Your task to perform on an android device: change notification settings in the gmail app Image 0: 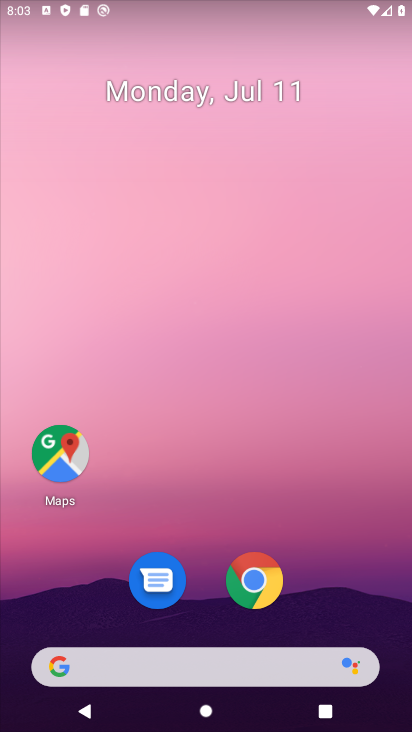
Step 0: drag from (377, 618) to (366, 167)
Your task to perform on an android device: change notification settings in the gmail app Image 1: 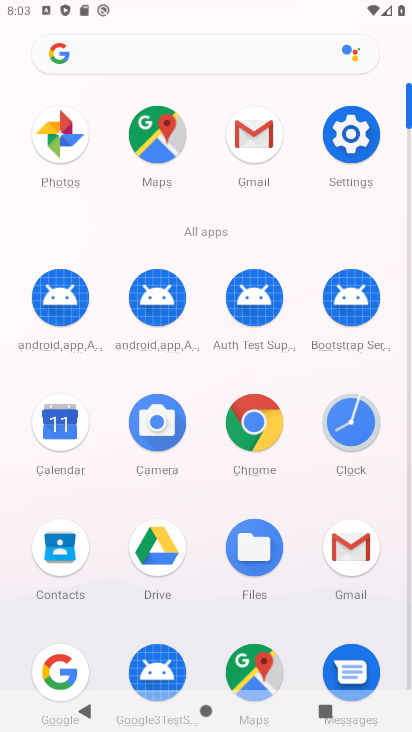
Step 1: click (350, 561)
Your task to perform on an android device: change notification settings in the gmail app Image 2: 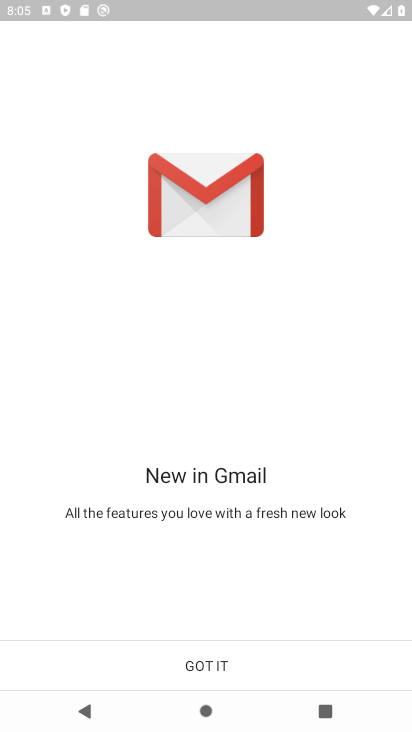
Step 2: click (184, 679)
Your task to perform on an android device: change notification settings in the gmail app Image 3: 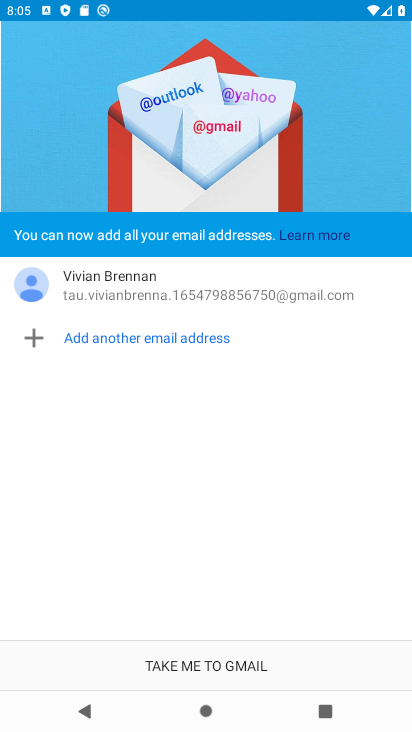
Step 3: click (174, 680)
Your task to perform on an android device: change notification settings in the gmail app Image 4: 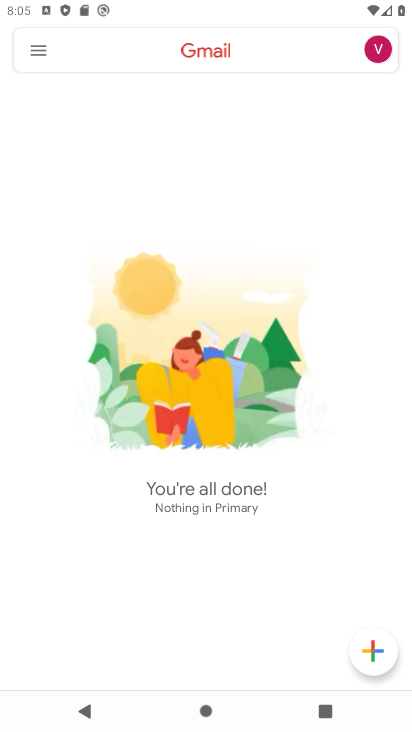
Step 4: click (29, 44)
Your task to perform on an android device: change notification settings in the gmail app Image 5: 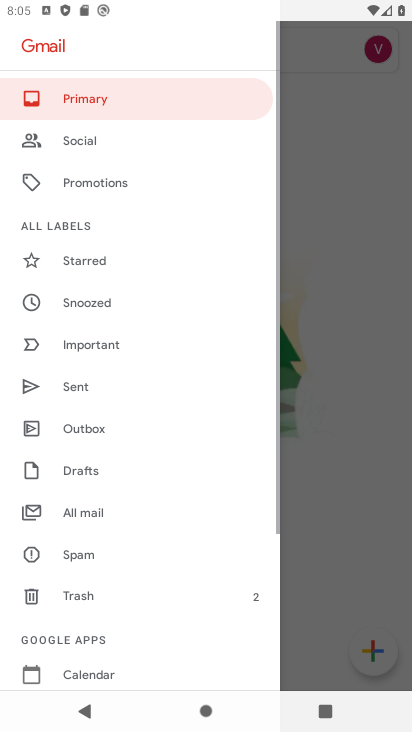
Step 5: click (99, 223)
Your task to perform on an android device: change notification settings in the gmail app Image 6: 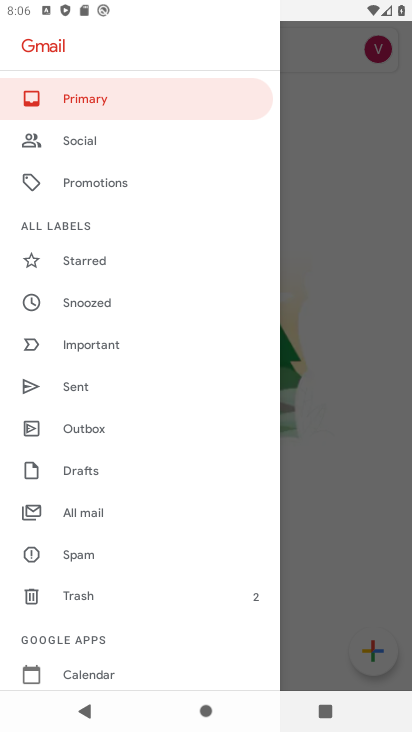
Step 6: drag from (114, 678) to (192, 47)
Your task to perform on an android device: change notification settings in the gmail app Image 7: 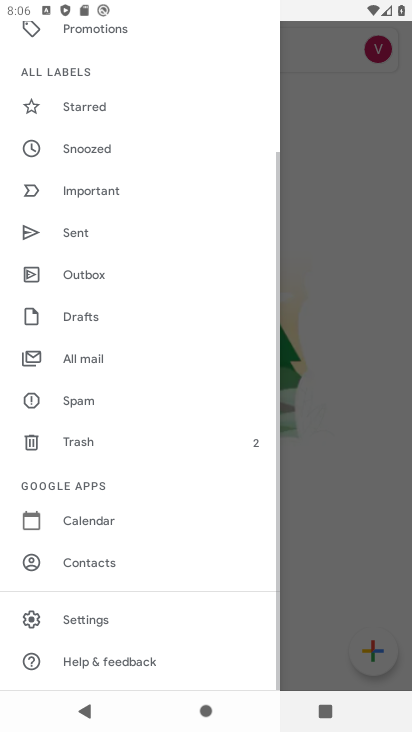
Step 7: click (105, 605)
Your task to perform on an android device: change notification settings in the gmail app Image 8: 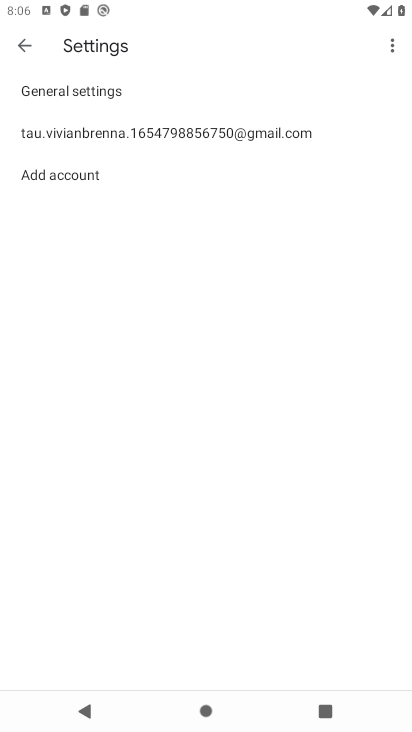
Step 8: click (153, 132)
Your task to perform on an android device: change notification settings in the gmail app Image 9: 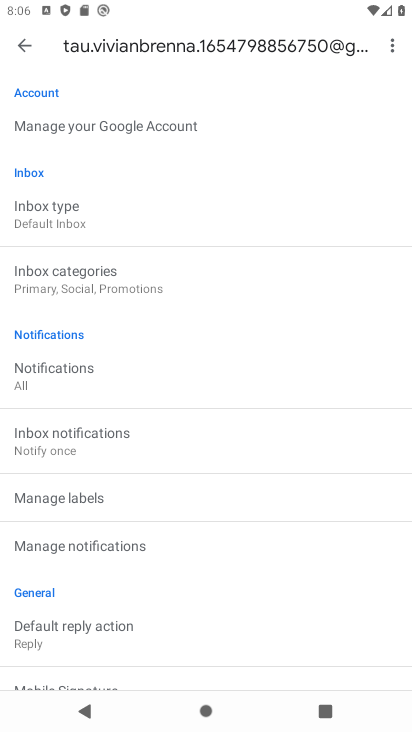
Step 9: click (57, 385)
Your task to perform on an android device: change notification settings in the gmail app Image 10: 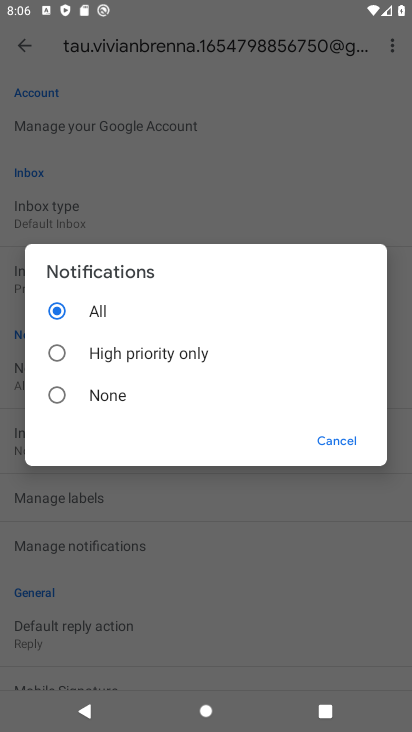
Step 10: click (47, 395)
Your task to perform on an android device: change notification settings in the gmail app Image 11: 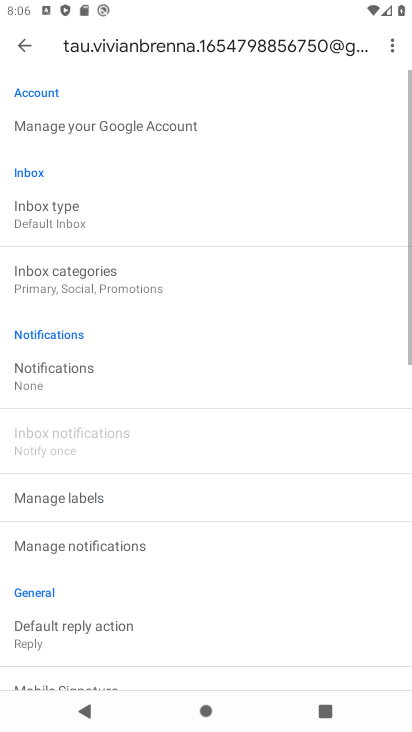
Step 11: task complete